Your task to perform on an android device: Open the phone app and click the voicemail tab. Image 0: 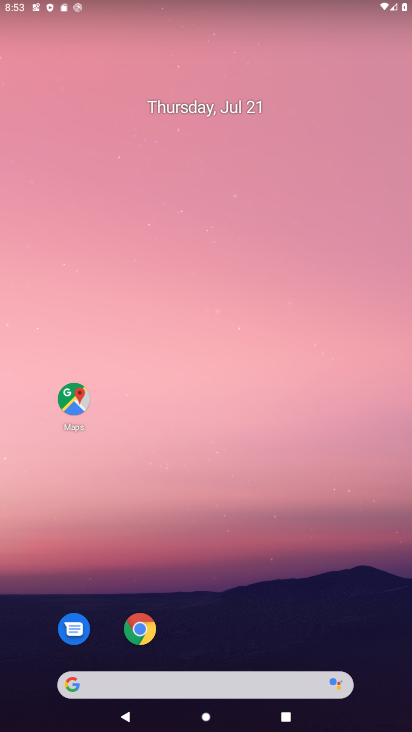
Step 0: drag from (186, 646) to (259, 68)
Your task to perform on an android device: Open the phone app and click the voicemail tab. Image 1: 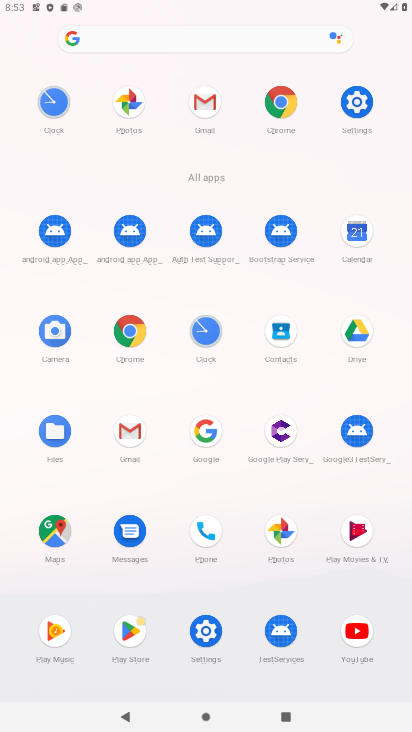
Step 1: click (200, 546)
Your task to perform on an android device: Open the phone app and click the voicemail tab. Image 2: 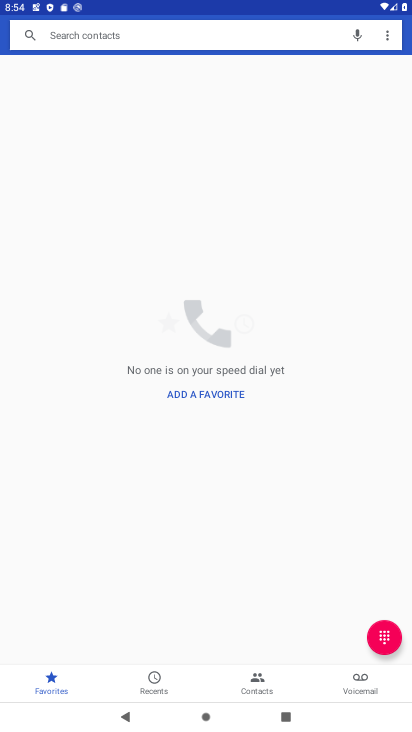
Step 2: click (375, 684)
Your task to perform on an android device: Open the phone app and click the voicemail tab. Image 3: 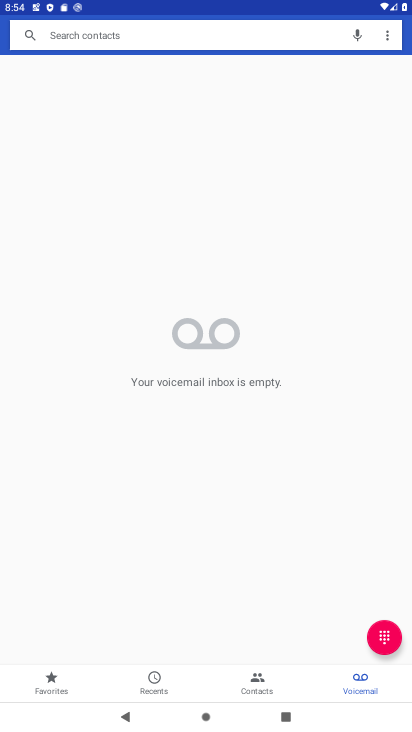
Step 3: task complete